Your task to perform on an android device: add a contact Image 0: 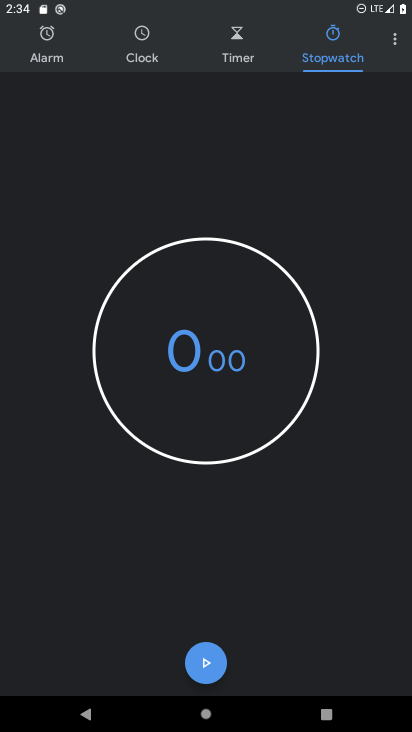
Step 0: press home button
Your task to perform on an android device: add a contact Image 1: 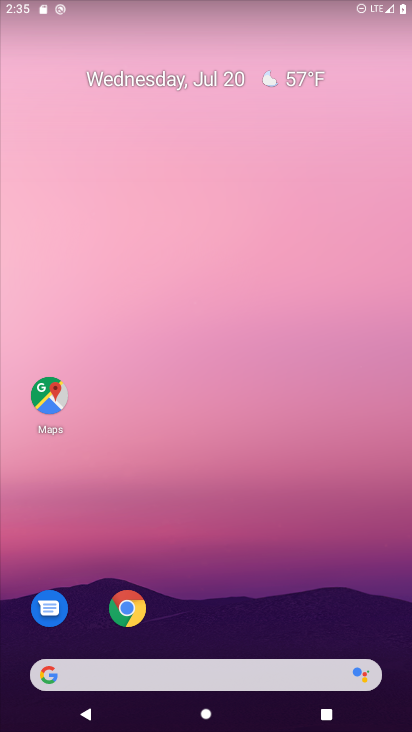
Step 1: drag from (246, 706) to (216, 361)
Your task to perform on an android device: add a contact Image 2: 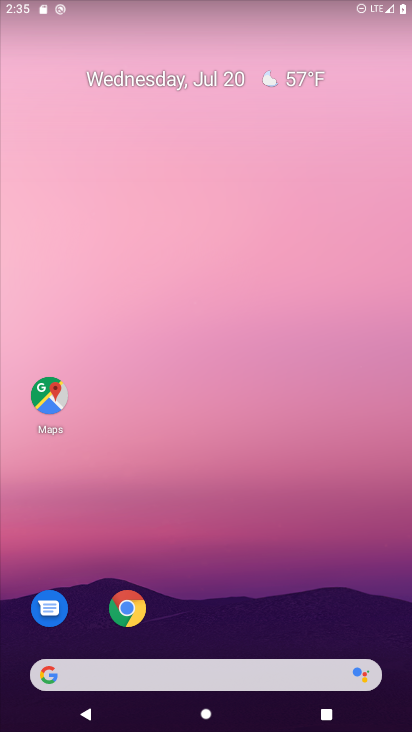
Step 2: drag from (245, 720) to (191, 218)
Your task to perform on an android device: add a contact Image 3: 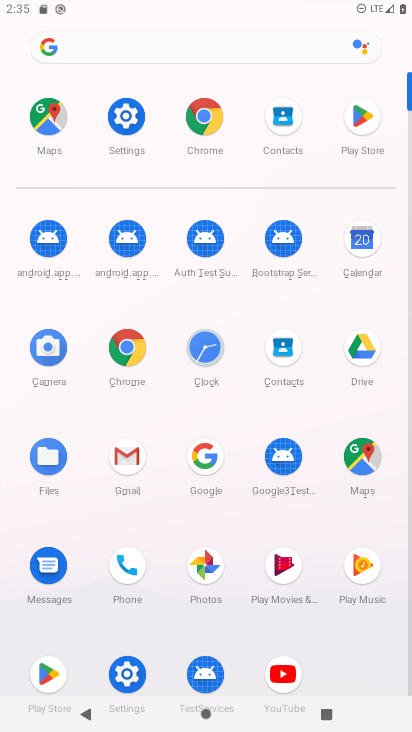
Step 3: click (290, 350)
Your task to perform on an android device: add a contact Image 4: 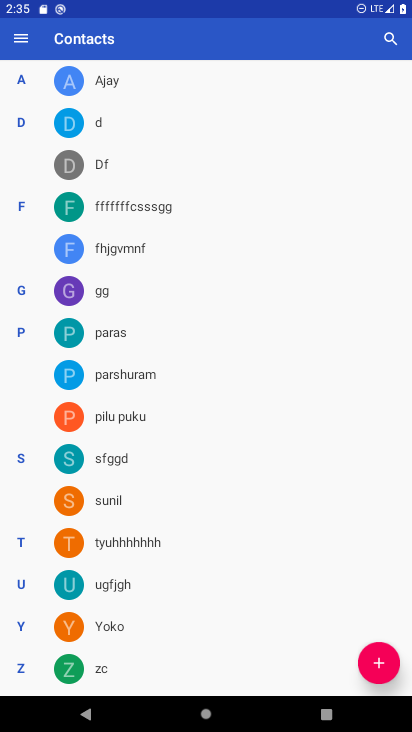
Step 4: click (375, 664)
Your task to perform on an android device: add a contact Image 5: 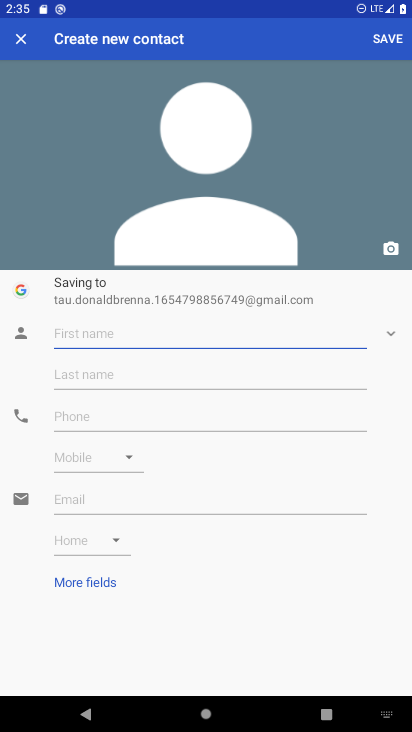
Step 5: type "haro"
Your task to perform on an android device: add a contact Image 6: 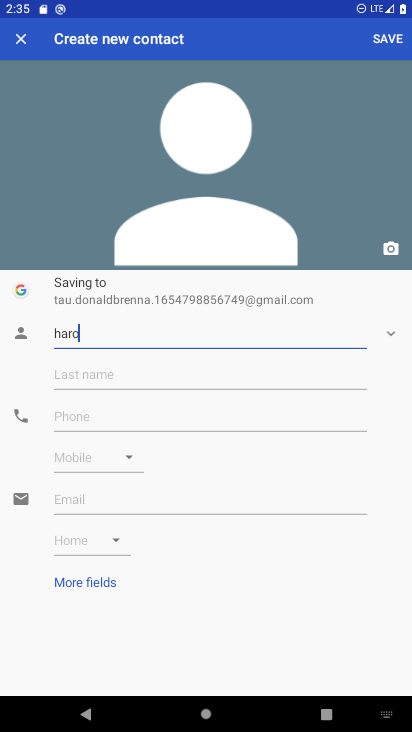
Step 6: click (172, 410)
Your task to perform on an android device: add a contact Image 7: 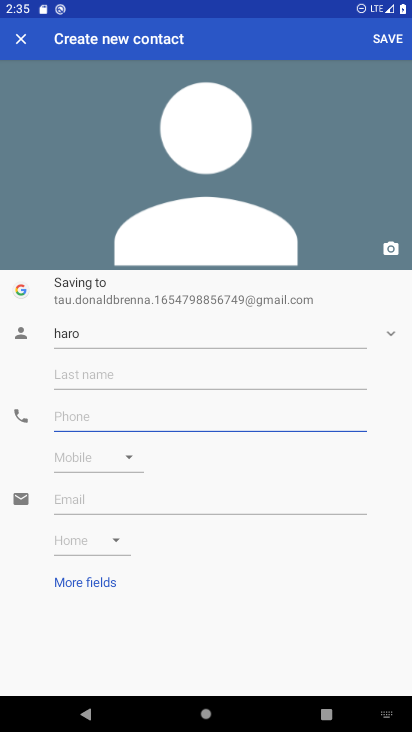
Step 7: type "567890"
Your task to perform on an android device: add a contact Image 8: 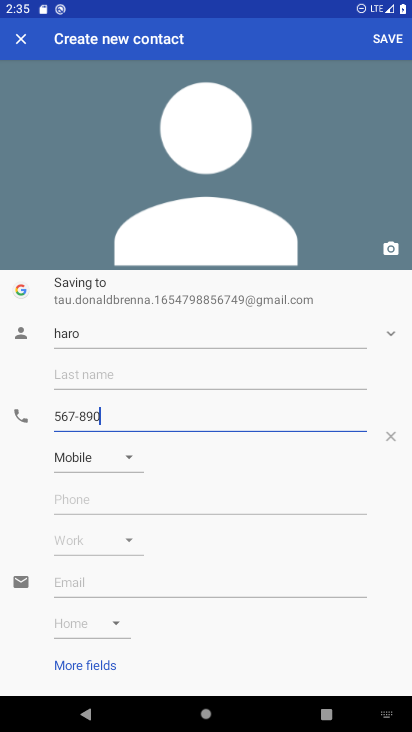
Step 8: type ""
Your task to perform on an android device: add a contact Image 9: 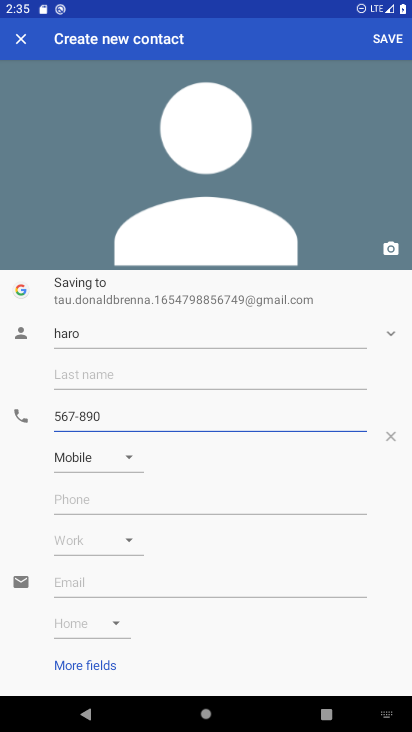
Step 9: click (385, 40)
Your task to perform on an android device: add a contact Image 10: 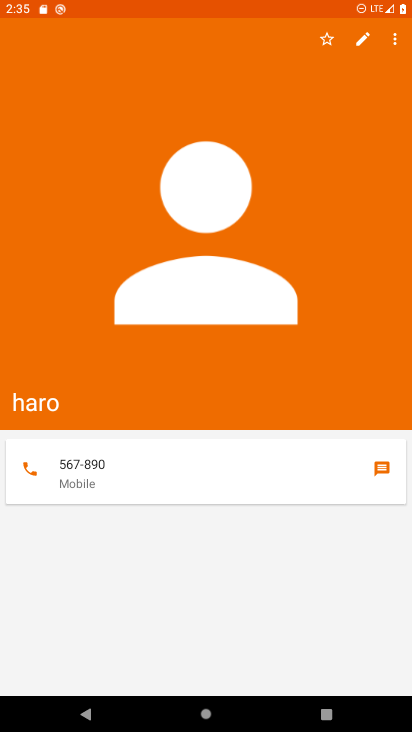
Step 10: task complete